Your task to perform on an android device: open a new tab in the chrome app Image 0: 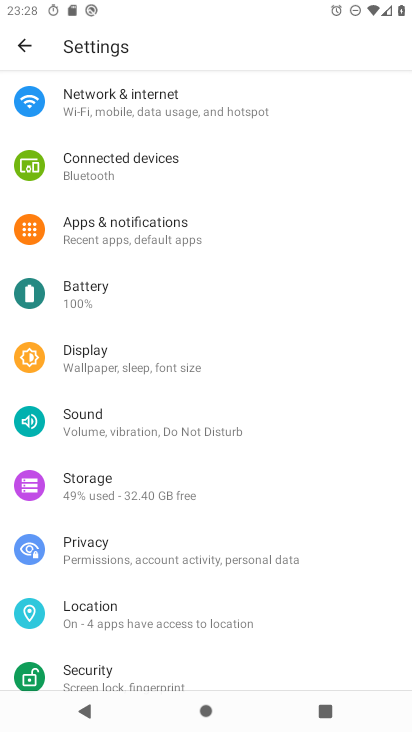
Step 0: press home button
Your task to perform on an android device: open a new tab in the chrome app Image 1: 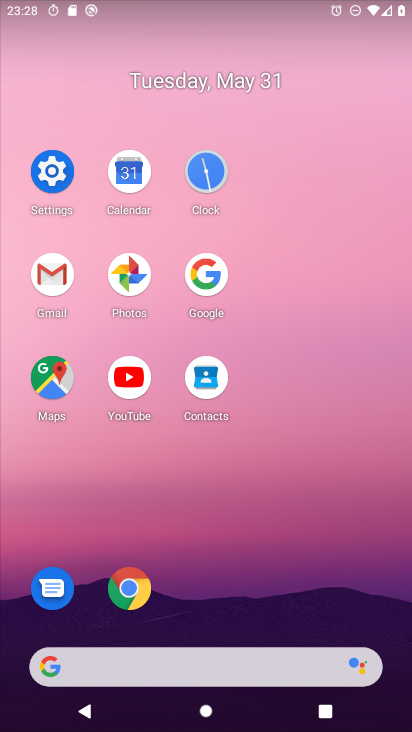
Step 1: click (121, 597)
Your task to perform on an android device: open a new tab in the chrome app Image 2: 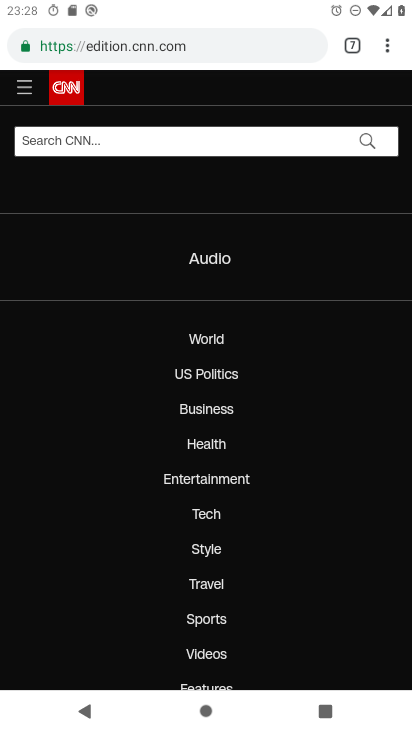
Step 2: click (355, 48)
Your task to perform on an android device: open a new tab in the chrome app Image 3: 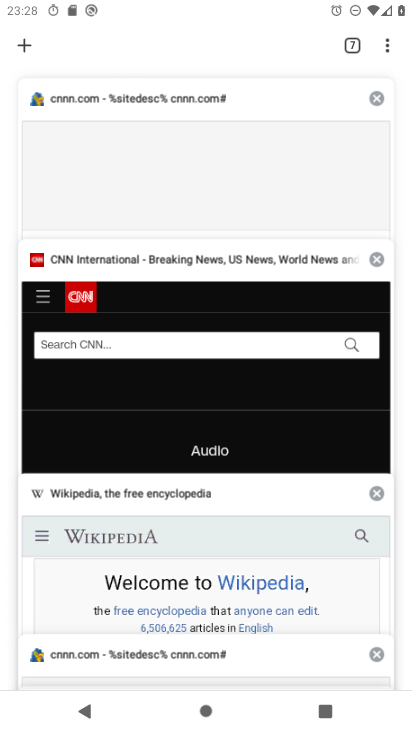
Step 3: click (38, 49)
Your task to perform on an android device: open a new tab in the chrome app Image 4: 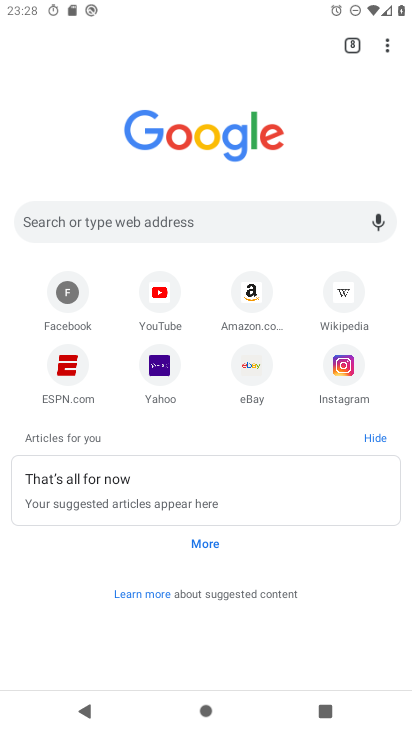
Step 4: task complete